Your task to perform on an android device: Set the phone to "Do not disturb". Image 0: 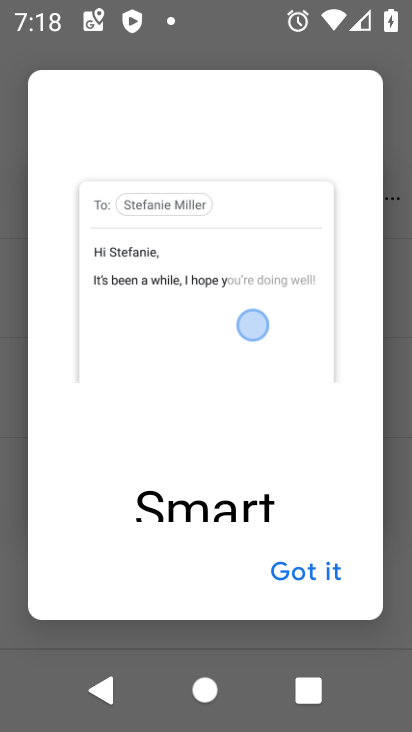
Step 0: press home button
Your task to perform on an android device: Set the phone to "Do not disturb". Image 1: 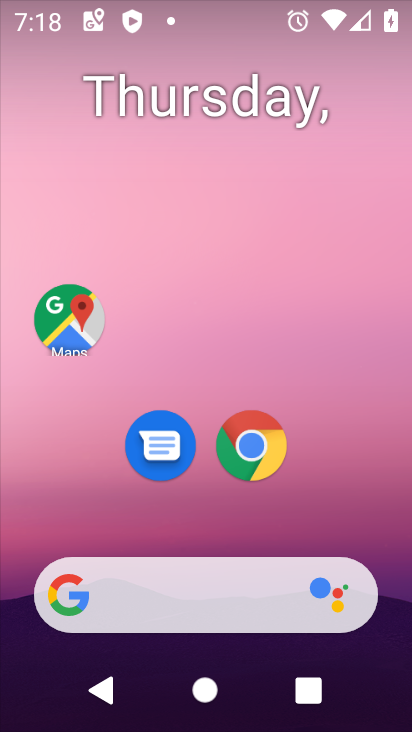
Step 1: drag from (350, 561) to (301, 32)
Your task to perform on an android device: Set the phone to "Do not disturb". Image 2: 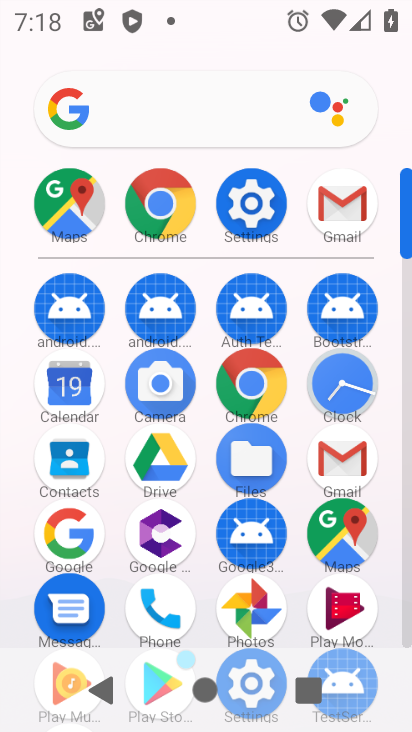
Step 2: click (244, 205)
Your task to perform on an android device: Set the phone to "Do not disturb". Image 3: 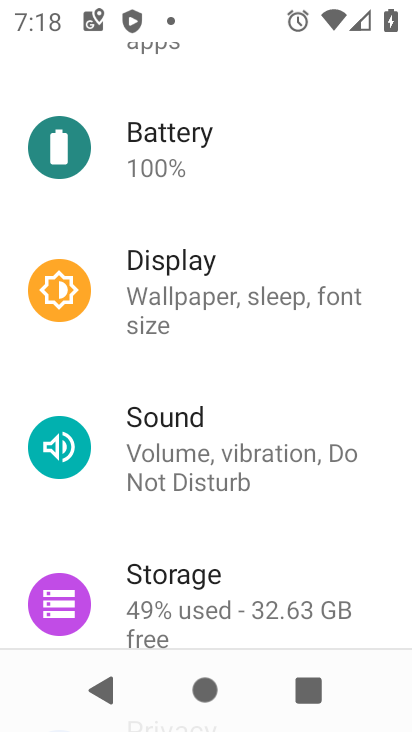
Step 3: click (155, 416)
Your task to perform on an android device: Set the phone to "Do not disturb". Image 4: 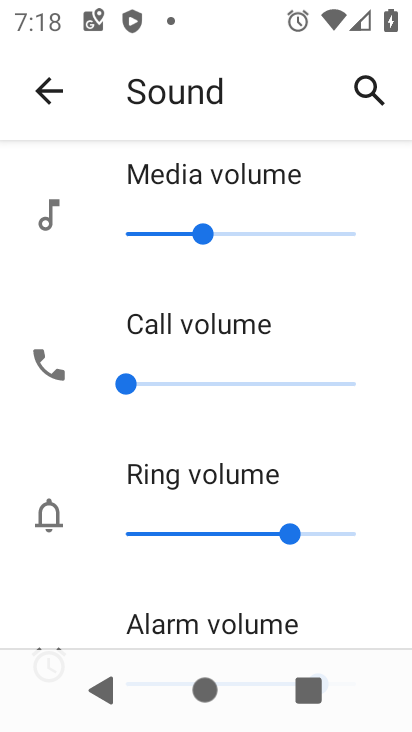
Step 4: drag from (263, 422) to (300, 171)
Your task to perform on an android device: Set the phone to "Do not disturb". Image 5: 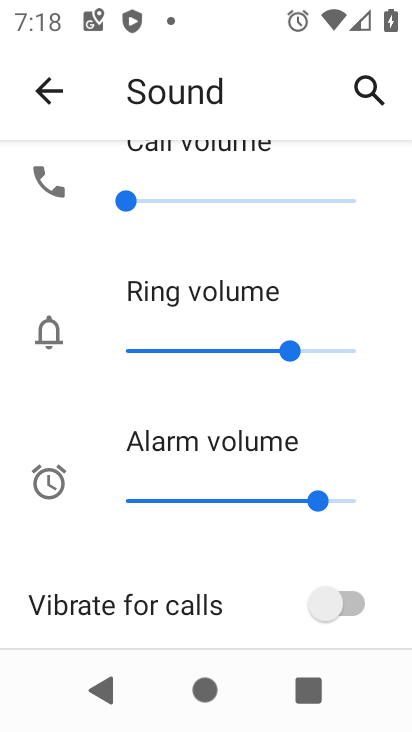
Step 5: drag from (206, 533) to (214, 305)
Your task to perform on an android device: Set the phone to "Do not disturb". Image 6: 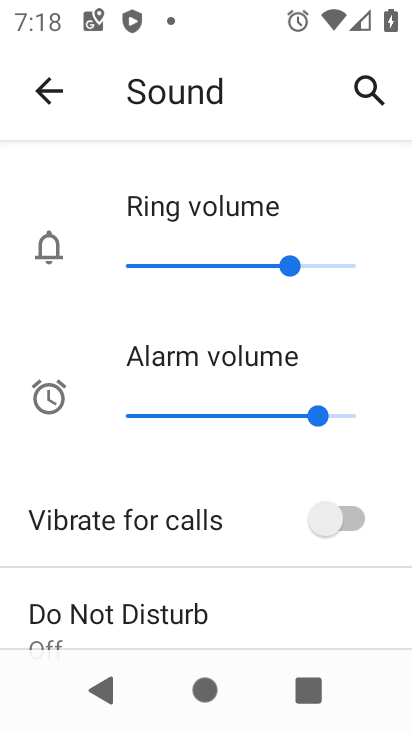
Step 6: drag from (153, 569) to (173, 384)
Your task to perform on an android device: Set the phone to "Do not disturb". Image 7: 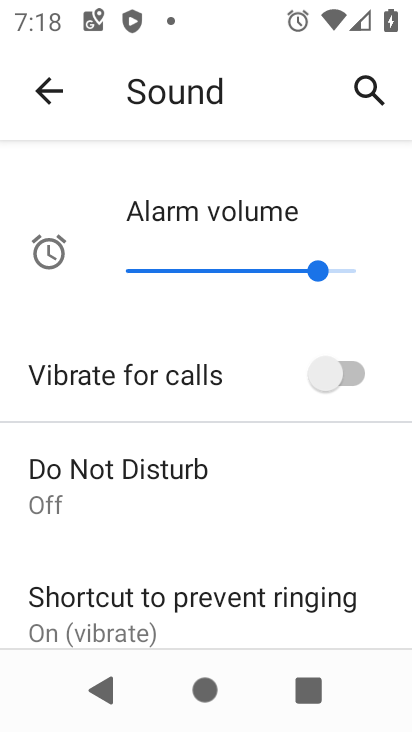
Step 7: click (70, 472)
Your task to perform on an android device: Set the phone to "Do not disturb". Image 8: 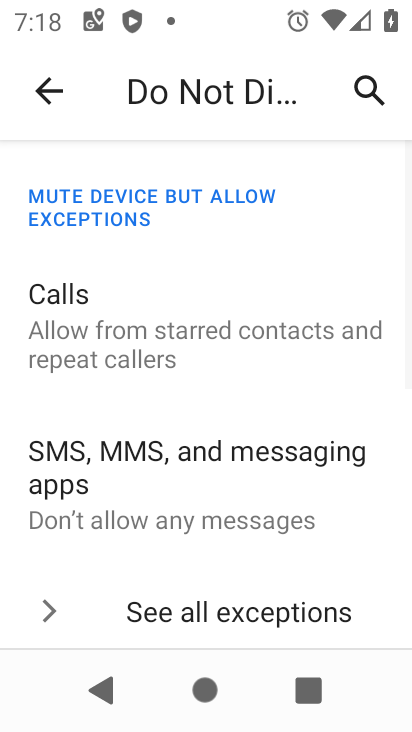
Step 8: drag from (288, 514) to (305, 193)
Your task to perform on an android device: Set the phone to "Do not disturb". Image 9: 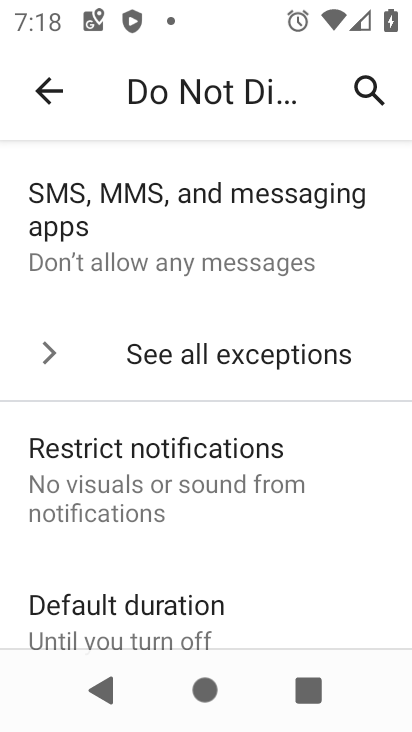
Step 9: drag from (201, 538) to (160, 320)
Your task to perform on an android device: Set the phone to "Do not disturb". Image 10: 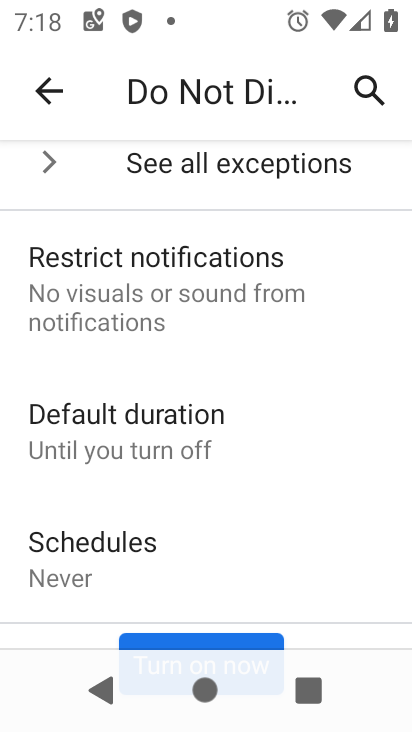
Step 10: drag from (216, 535) to (180, 127)
Your task to perform on an android device: Set the phone to "Do not disturb". Image 11: 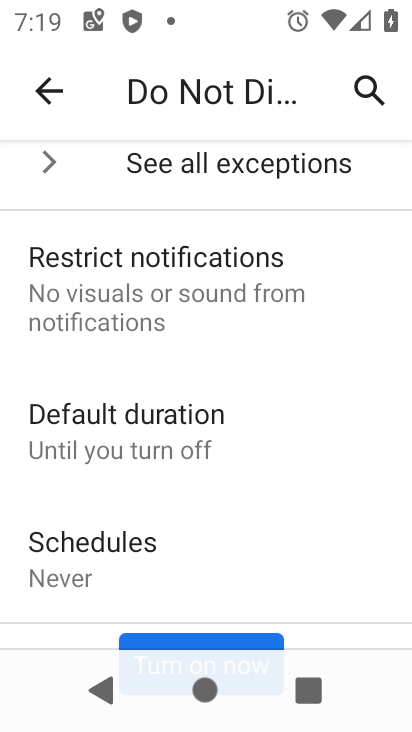
Step 11: drag from (236, 438) to (198, 169)
Your task to perform on an android device: Set the phone to "Do not disturb". Image 12: 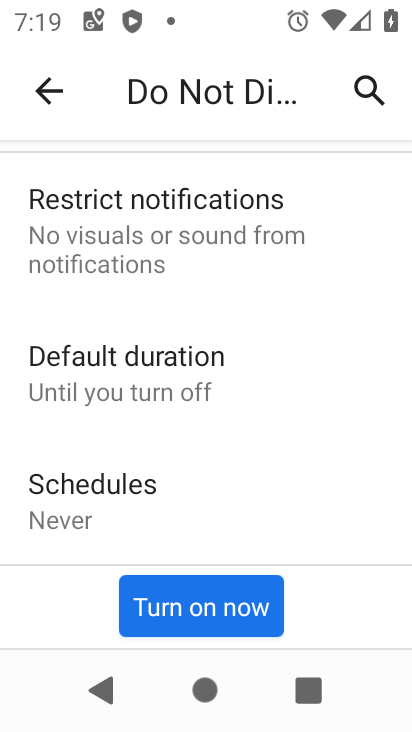
Step 12: click (186, 602)
Your task to perform on an android device: Set the phone to "Do not disturb". Image 13: 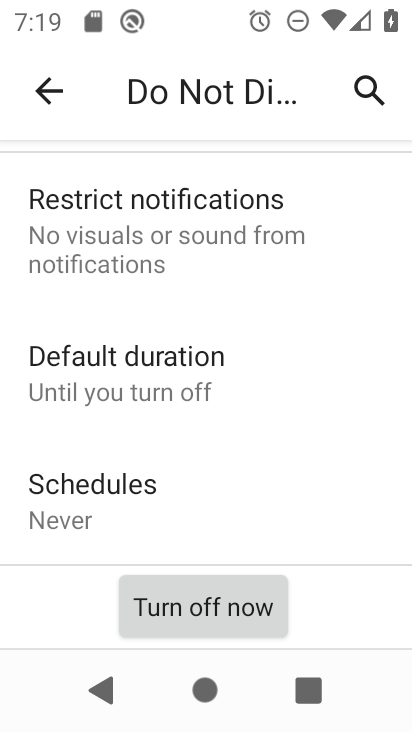
Step 13: task complete